Your task to perform on an android device: toggle notification dots Image 0: 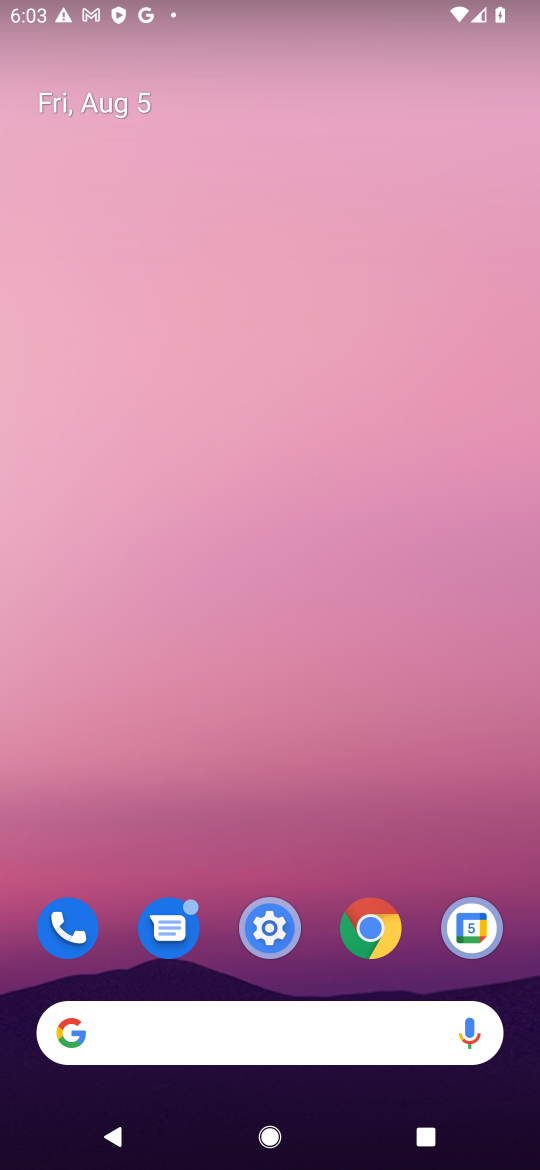
Step 0: drag from (220, 942) to (190, 83)
Your task to perform on an android device: toggle notification dots Image 1: 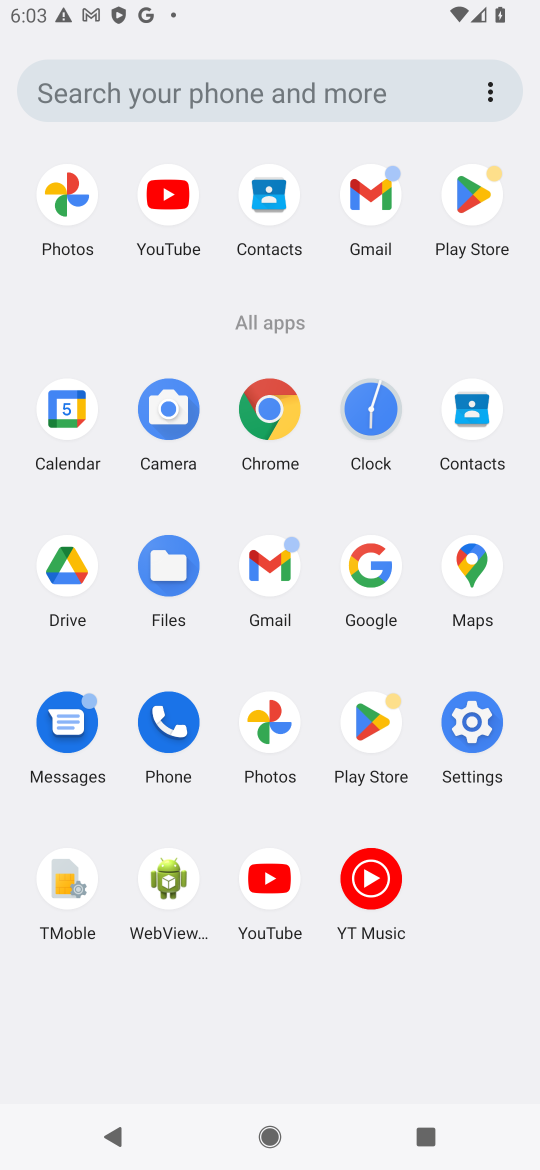
Step 1: click (467, 751)
Your task to perform on an android device: toggle notification dots Image 2: 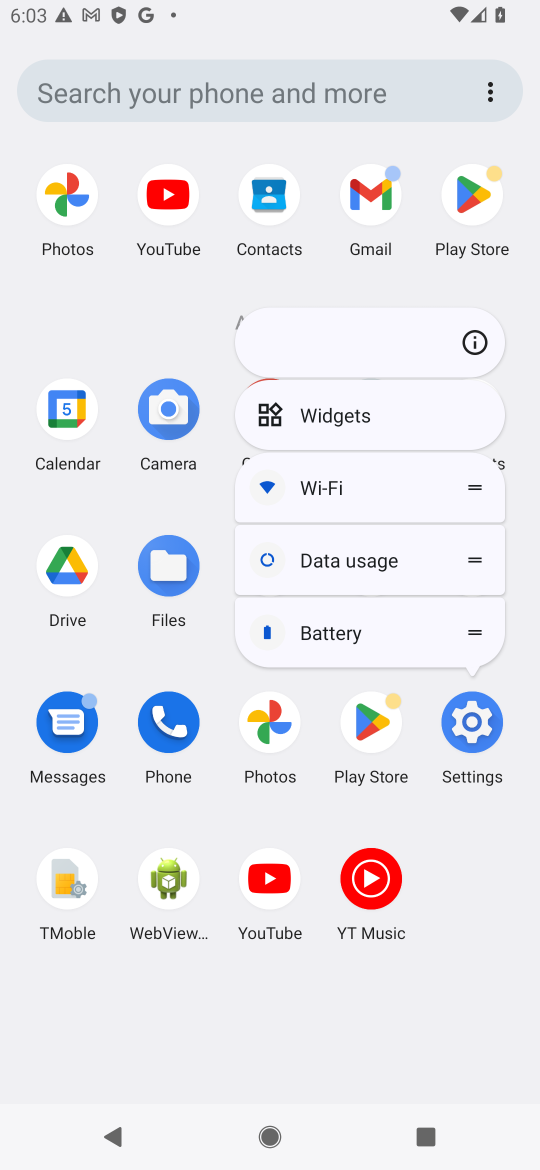
Step 2: click (470, 740)
Your task to perform on an android device: toggle notification dots Image 3: 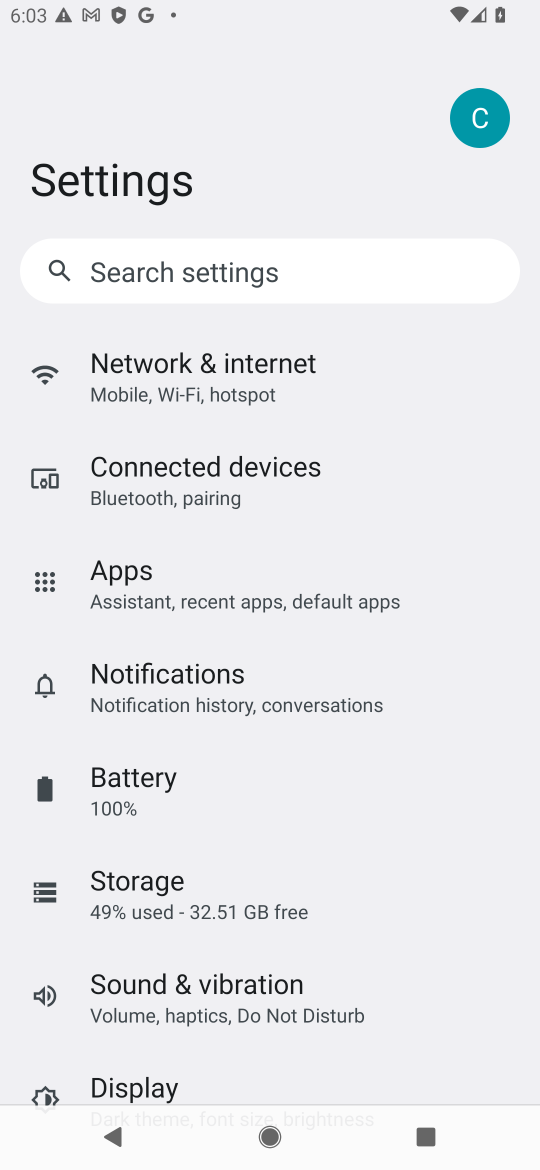
Step 3: click (213, 681)
Your task to perform on an android device: toggle notification dots Image 4: 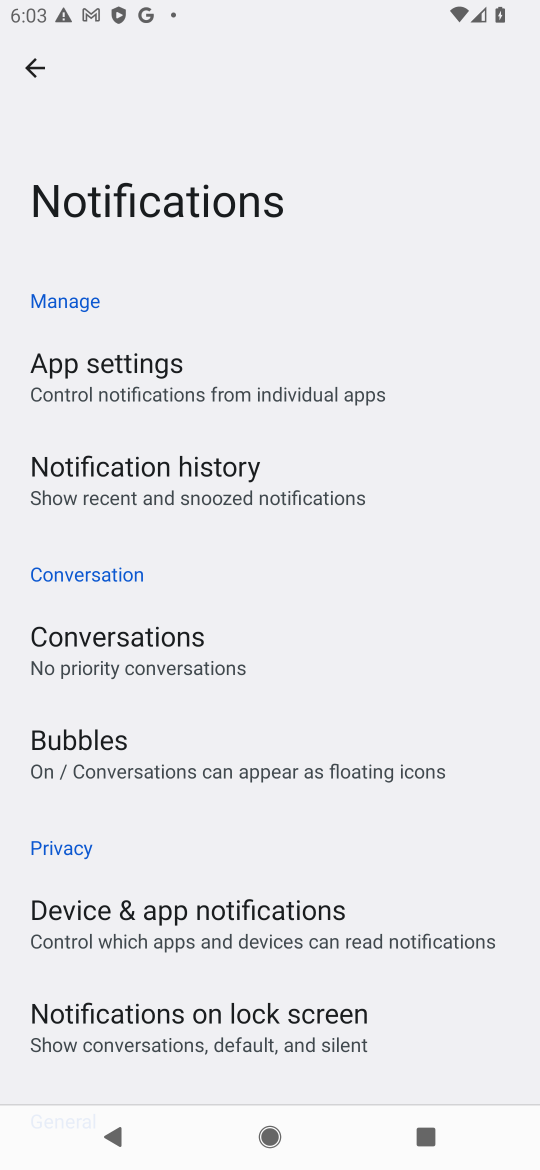
Step 4: drag from (187, 977) to (134, 113)
Your task to perform on an android device: toggle notification dots Image 5: 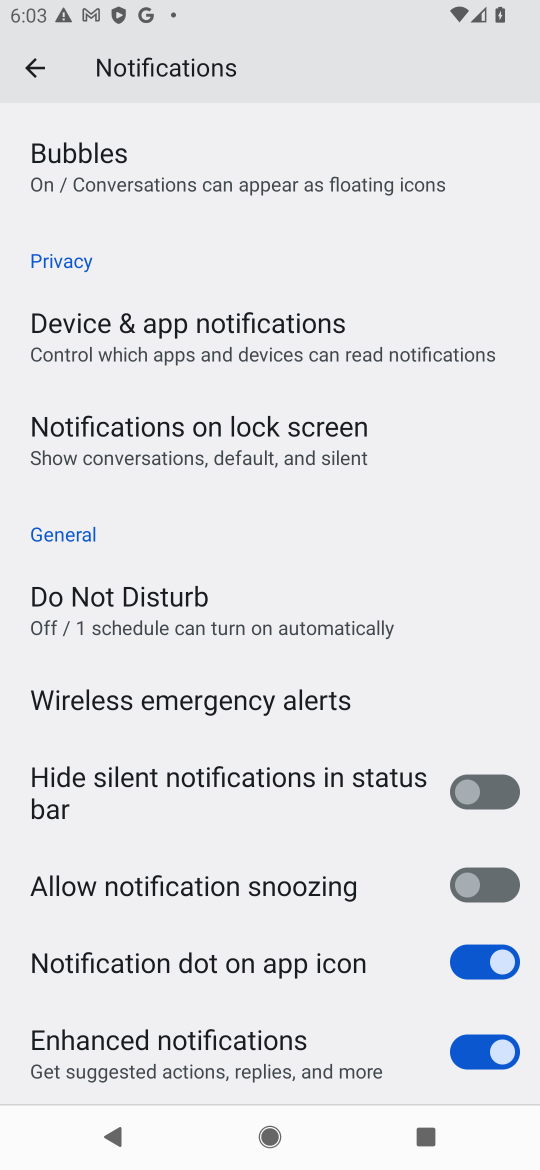
Step 5: drag from (312, 939) to (257, 266)
Your task to perform on an android device: toggle notification dots Image 6: 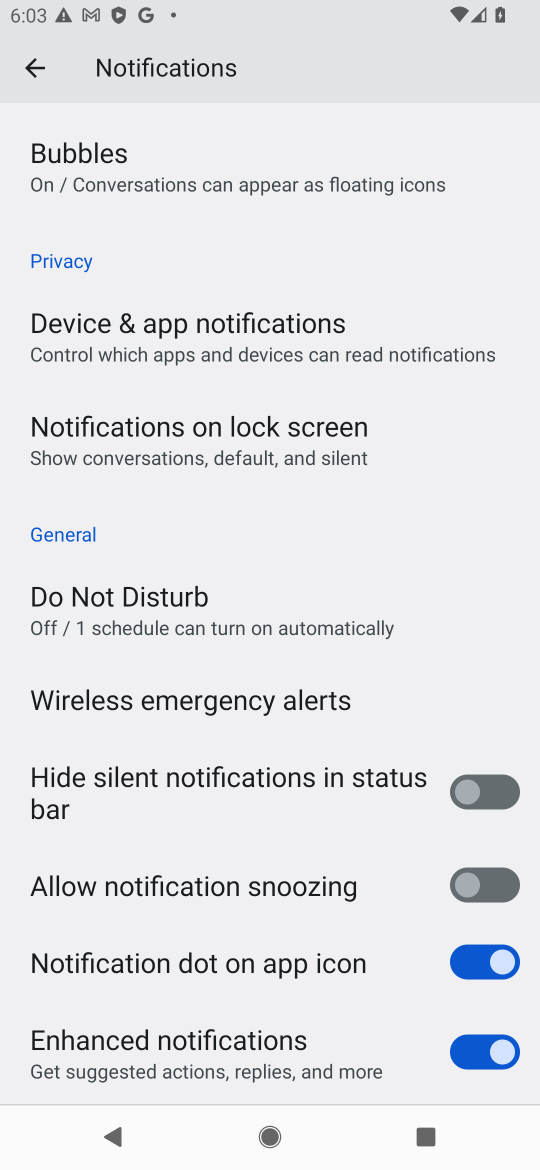
Step 6: click (270, 302)
Your task to perform on an android device: toggle notification dots Image 7: 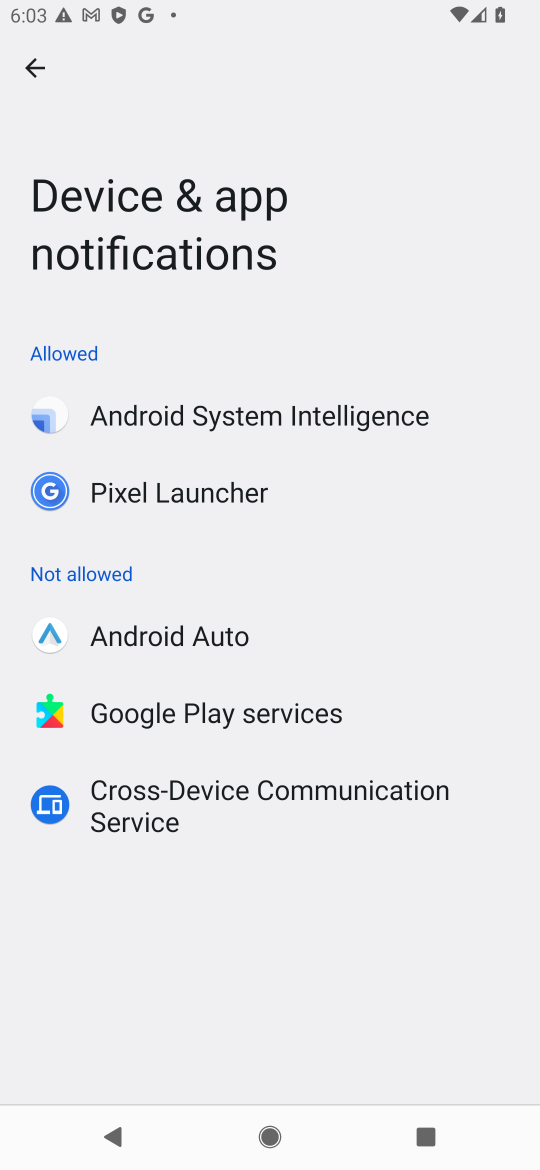
Step 7: task complete